Your task to perform on an android device: Open eBay Image 0: 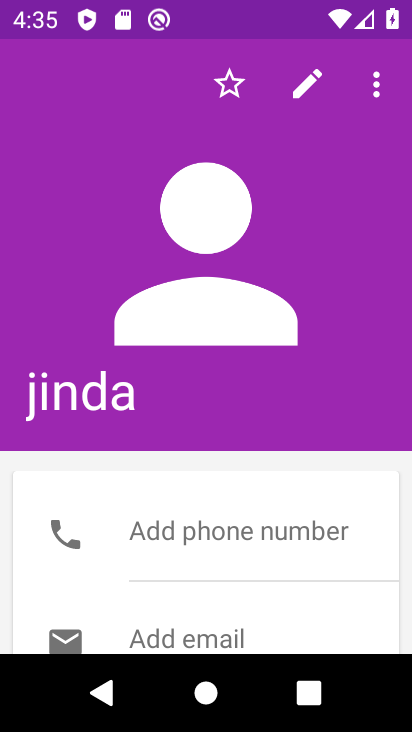
Step 0: press home button
Your task to perform on an android device: Open eBay Image 1: 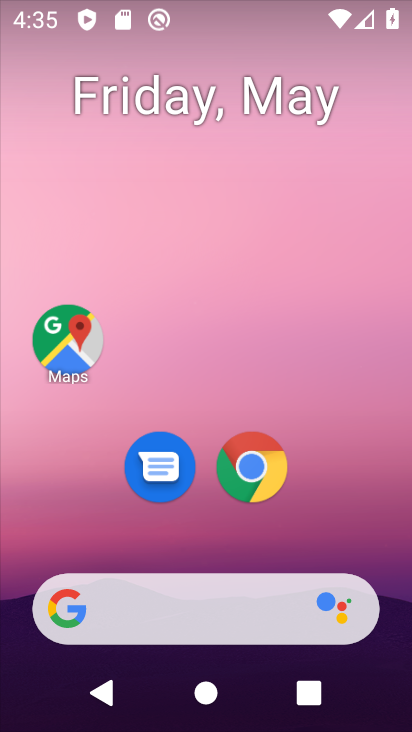
Step 1: click (267, 462)
Your task to perform on an android device: Open eBay Image 2: 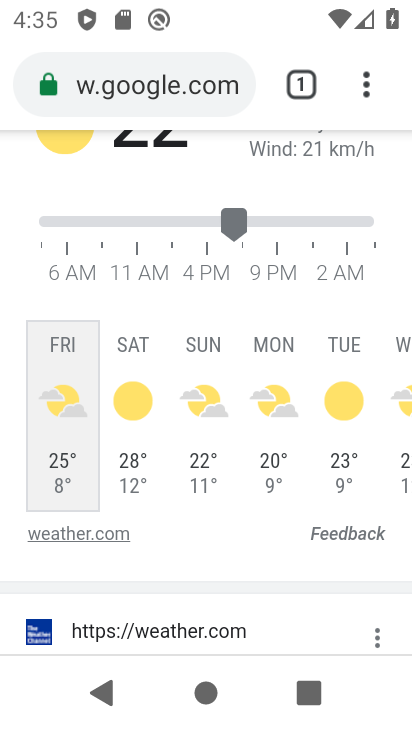
Step 2: click (211, 80)
Your task to perform on an android device: Open eBay Image 3: 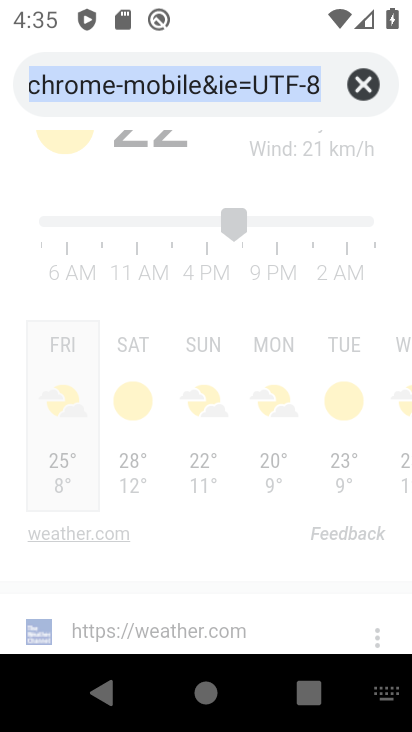
Step 3: type "ebay"
Your task to perform on an android device: Open eBay Image 4: 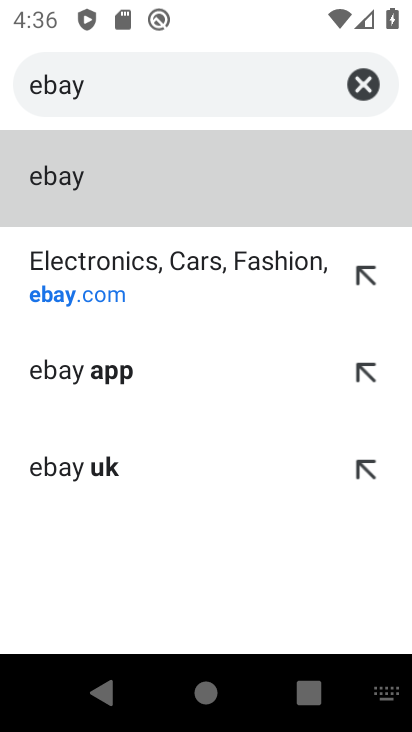
Step 4: click (85, 287)
Your task to perform on an android device: Open eBay Image 5: 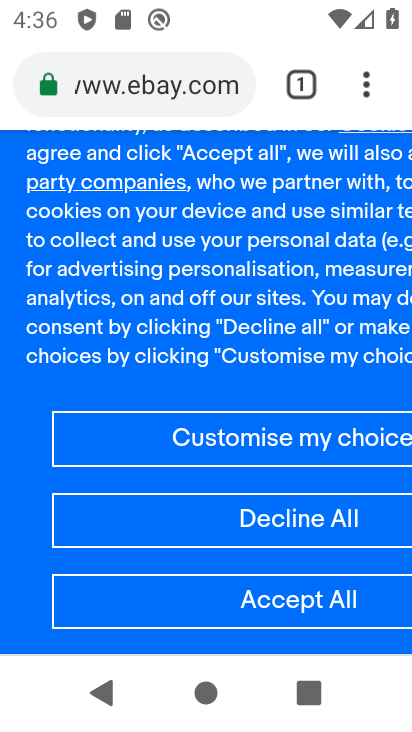
Step 5: task complete